Your task to perform on an android device: Open the Play Movies app and select the watchlist tab. Image 0: 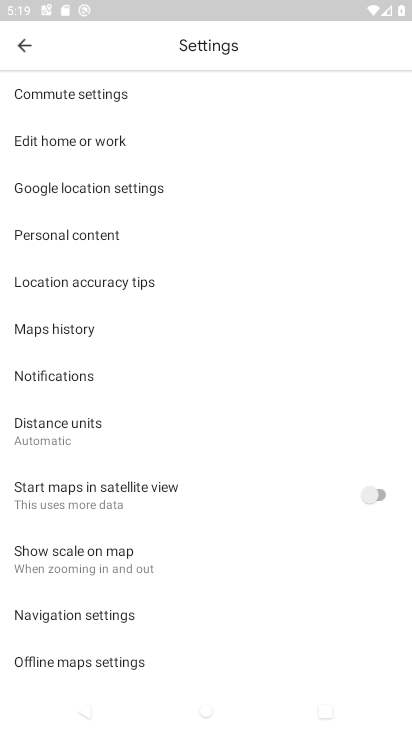
Step 0: press home button
Your task to perform on an android device: Open the Play Movies app and select the watchlist tab. Image 1: 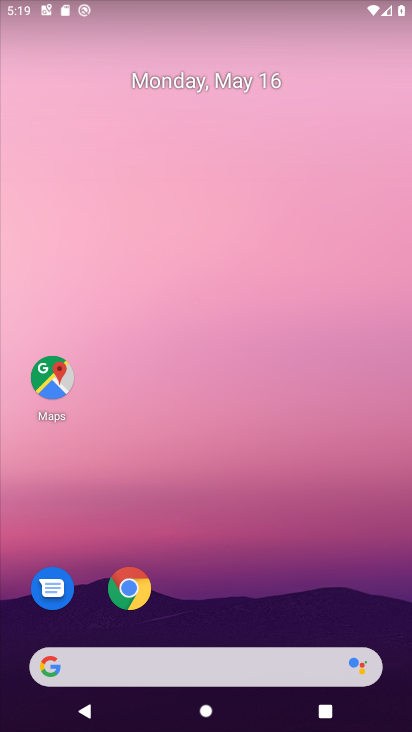
Step 1: drag from (259, 455) to (211, 63)
Your task to perform on an android device: Open the Play Movies app and select the watchlist tab. Image 2: 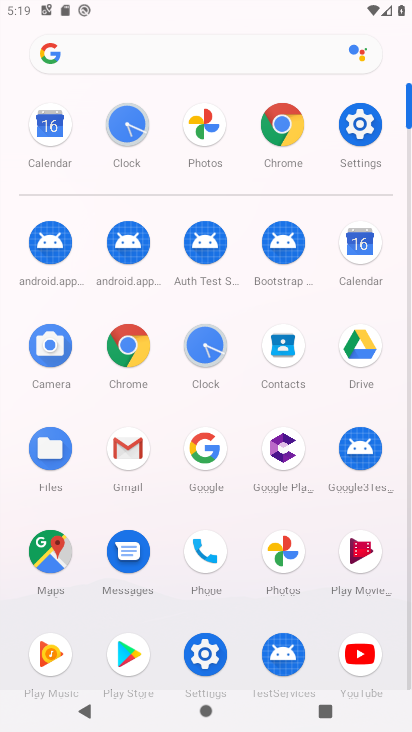
Step 2: click (356, 552)
Your task to perform on an android device: Open the Play Movies app and select the watchlist tab. Image 3: 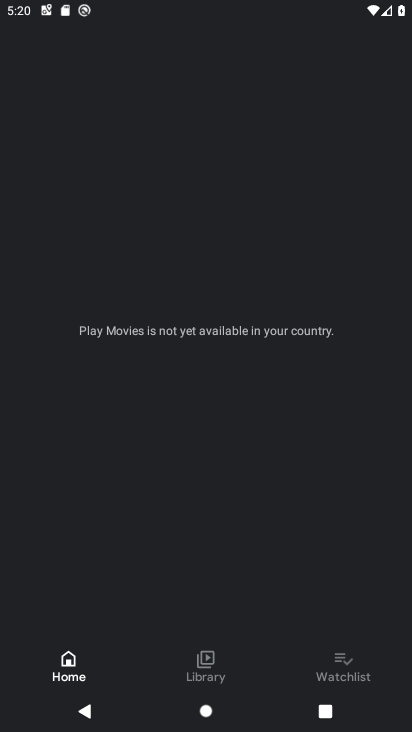
Step 3: click (352, 678)
Your task to perform on an android device: Open the Play Movies app and select the watchlist tab. Image 4: 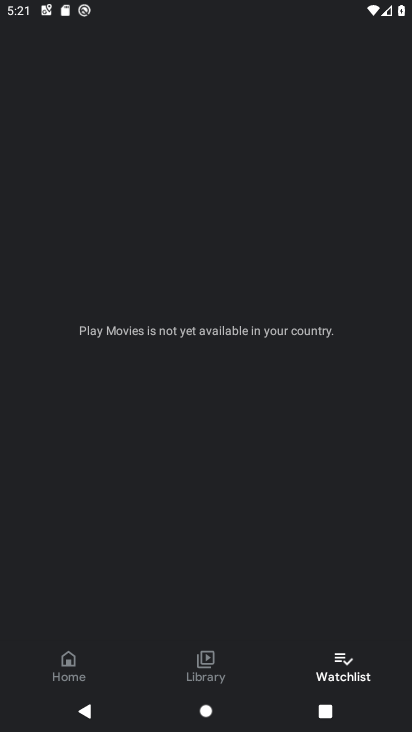
Step 4: task complete